Your task to perform on an android device: Toggle the flashlight Image 0: 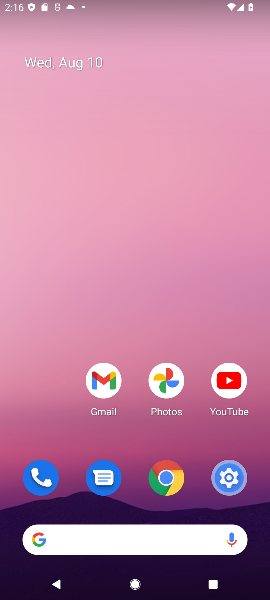
Step 0: task impossible